Your task to perform on an android device: Open Yahoo.com Image 0: 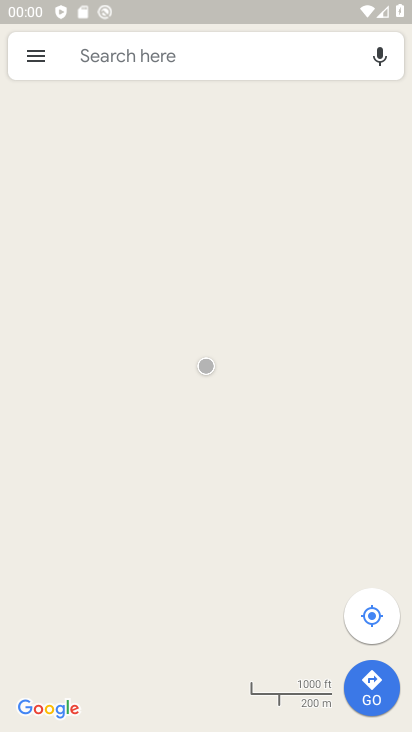
Step 0: press home button
Your task to perform on an android device: Open Yahoo.com Image 1: 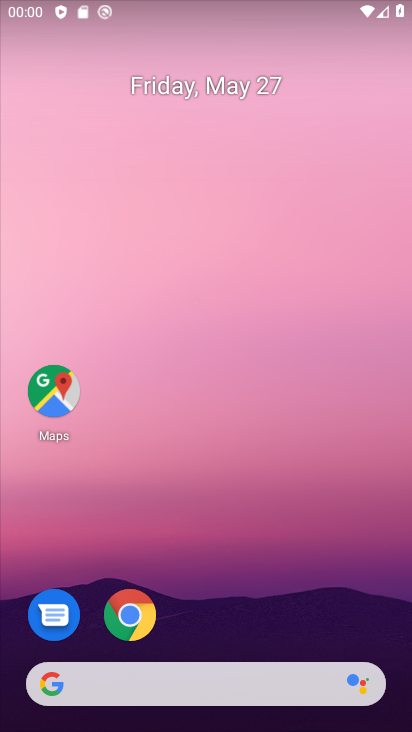
Step 1: drag from (344, 618) to (335, 274)
Your task to perform on an android device: Open Yahoo.com Image 2: 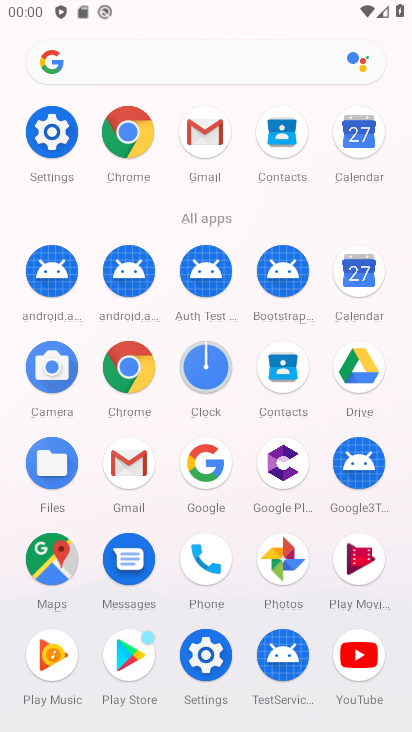
Step 2: click (143, 384)
Your task to perform on an android device: Open Yahoo.com Image 3: 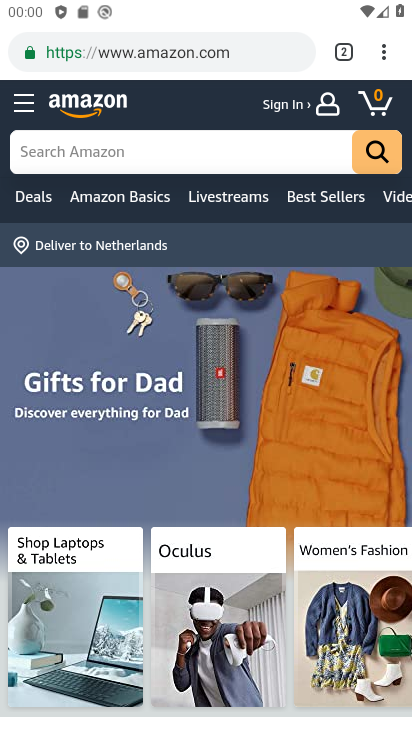
Step 3: press back button
Your task to perform on an android device: Open Yahoo.com Image 4: 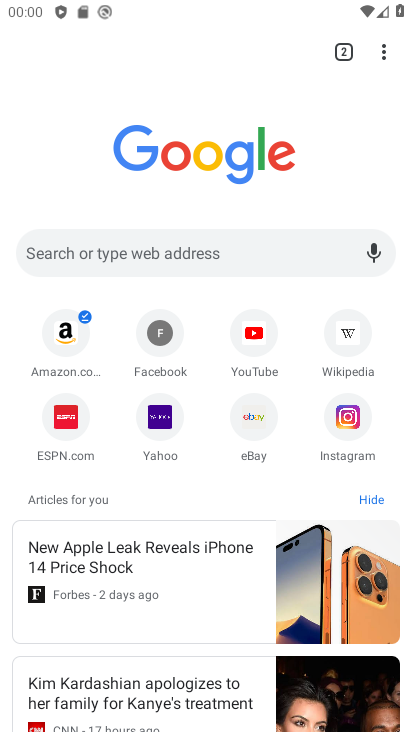
Step 4: click (161, 422)
Your task to perform on an android device: Open Yahoo.com Image 5: 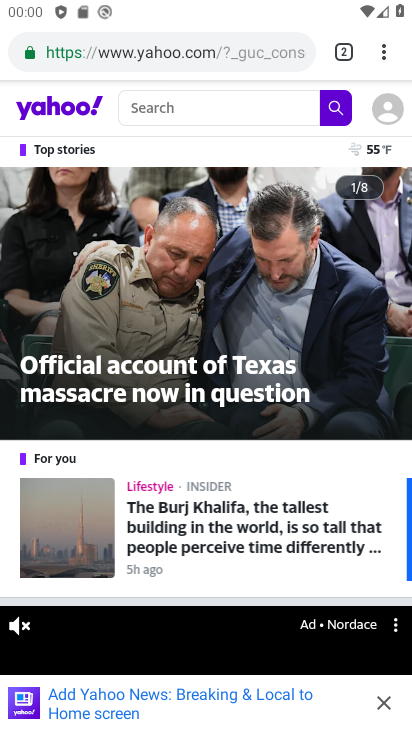
Step 5: task complete